Your task to perform on an android device: Open display settings Image 0: 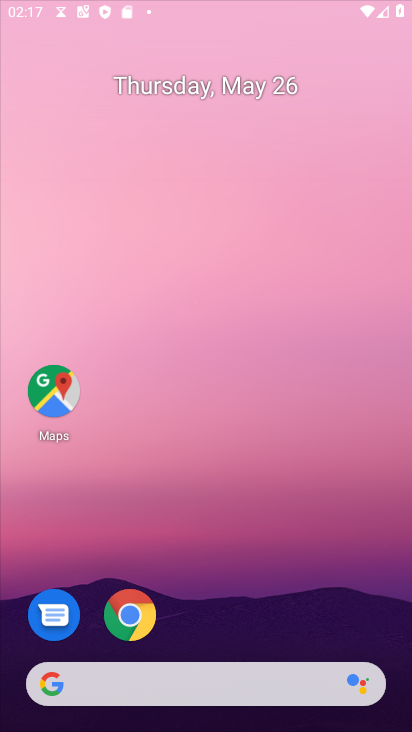
Step 0: press home button
Your task to perform on an android device: Open display settings Image 1: 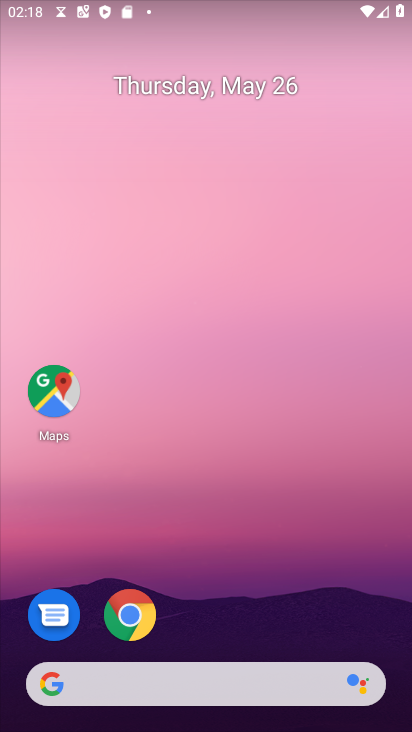
Step 1: drag from (234, 651) to (269, 51)
Your task to perform on an android device: Open display settings Image 2: 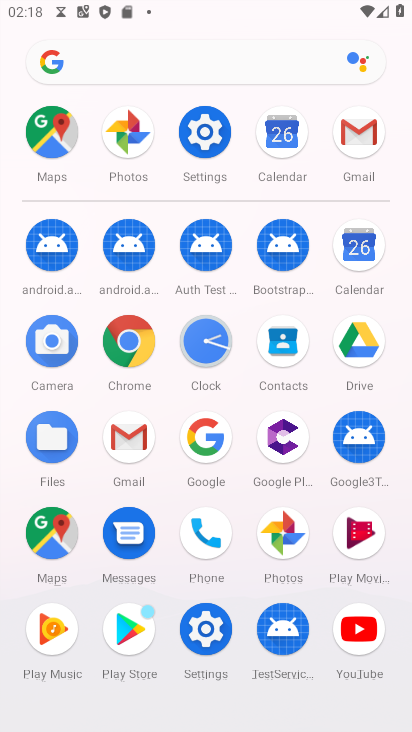
Step 2: click (201, 124)
Your task to perform on an android device: Open display settings Image 3: 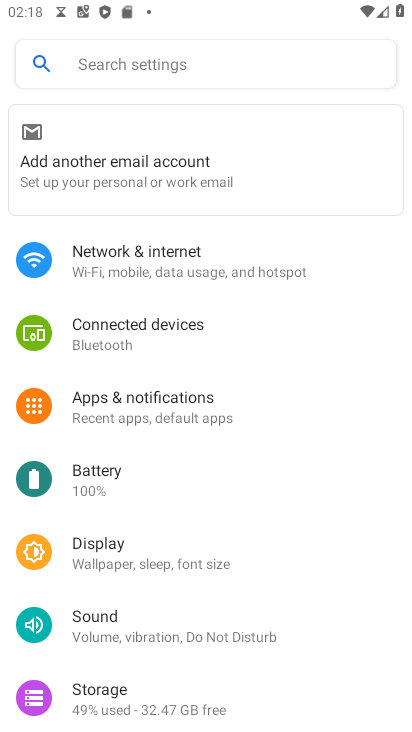
Step 3: click (134, 544)
Your task to perform on an android device: Open display settings Image 4: 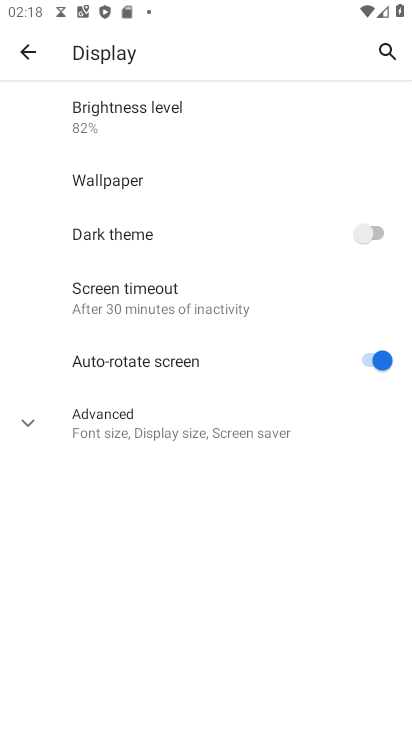
Step 4: click (30, 421)
Your task to perform on an android device: Open display settings Image 5: 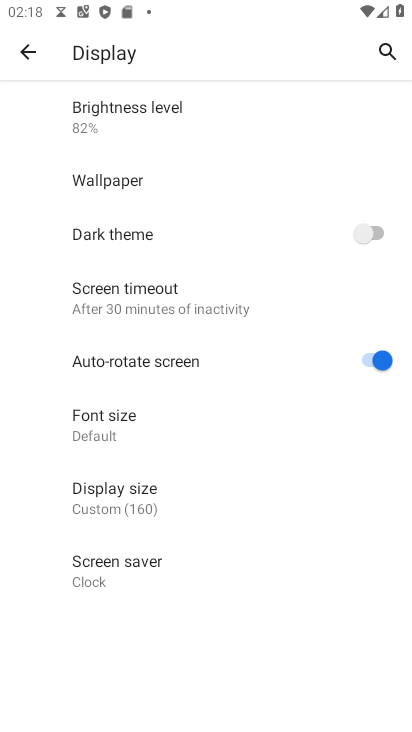
Step 5: task complete